Your task to perform on an android device: Add "bose soundlink mini" to the cart on bestbuy.com, then select checkout. Image 0: 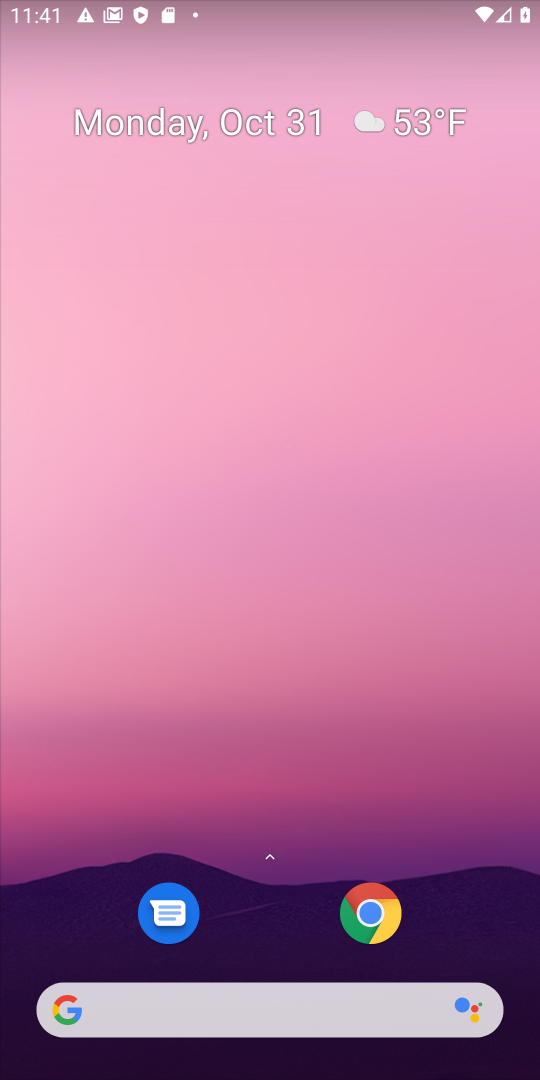
Step 0: click (336, 1016)
Your task to perform on an android device: Add "bose soundlink mini" to the cart on bestbuy.com, then select checkout. Image 1: 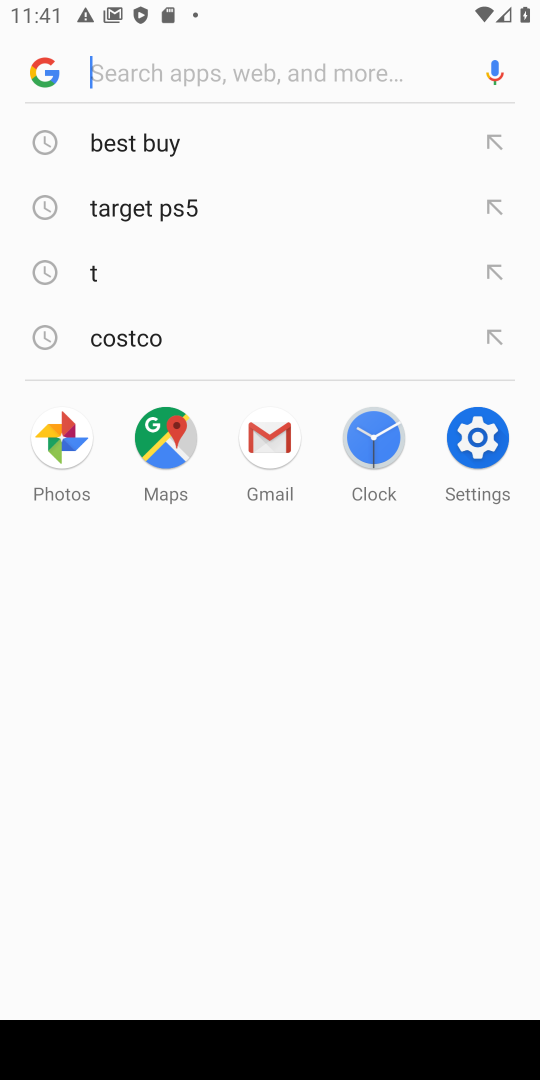
Step 1: type "bestbuy"
Your task to perform on an android device: Add "bose soundlink mini" to the cart on bestbuy.com, then select checkout. Image 2: 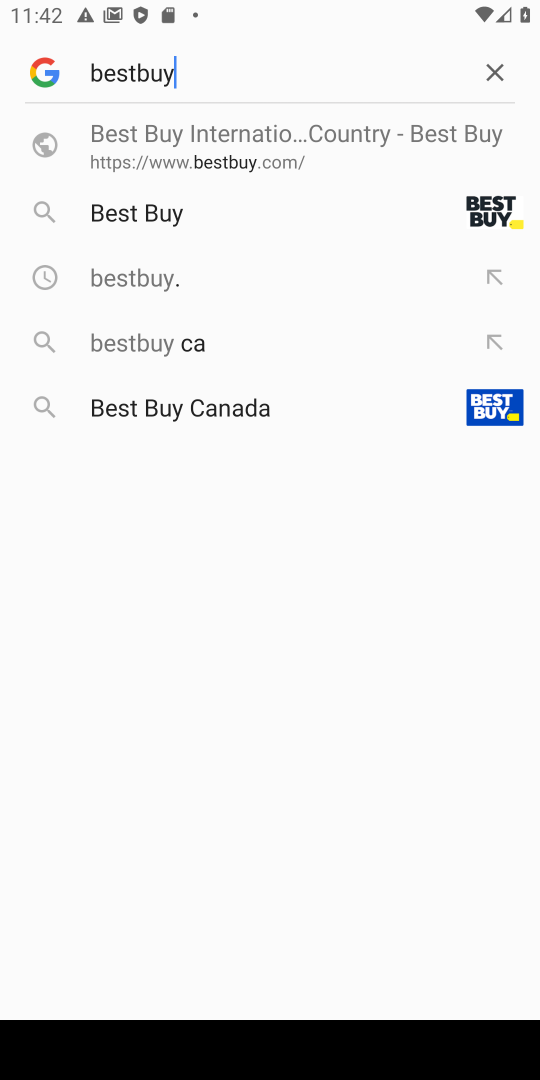
Step 2: click (266, 175)
Your task to perform on an android device: Add "bose soundlink mini" to the cart on bestbuy.com, then select checkout. Image 3: 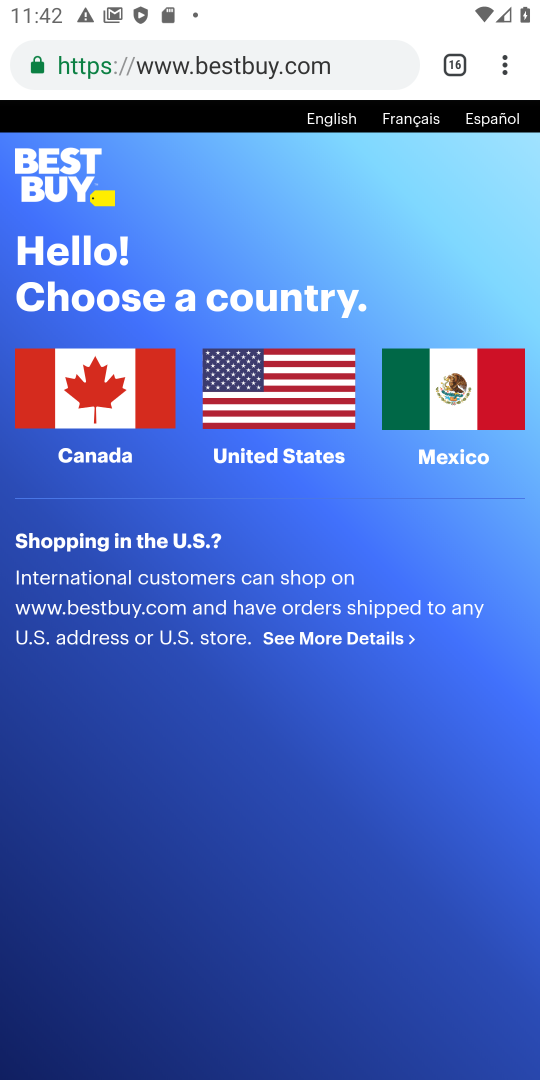
Step 3: click (117, 376)
Your task to perform on an android device: Add "bose soundlink mini" to the cart on bestbuy.com, then select checkout. Image 4: 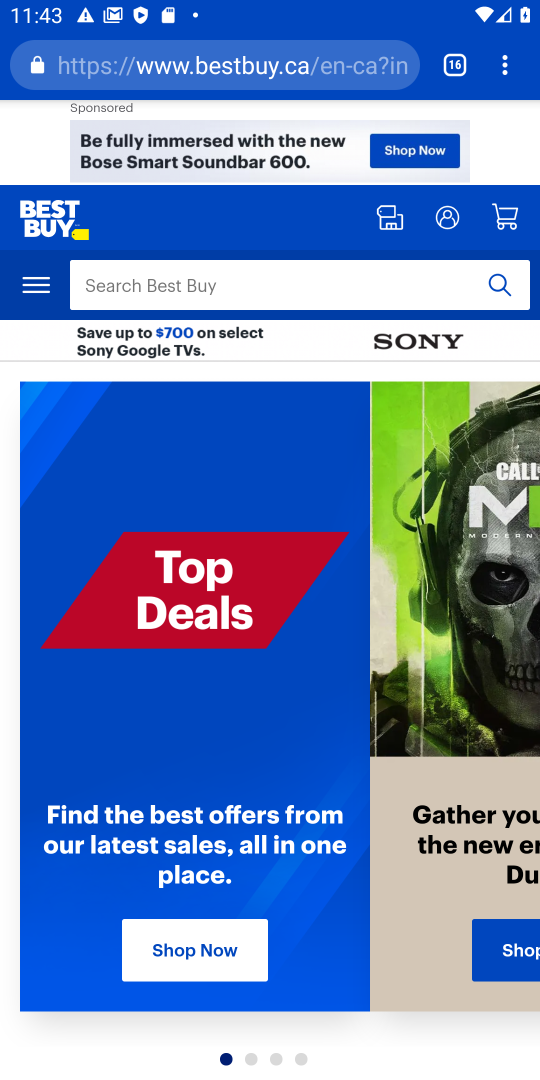
Step 4: task complete